Your task to perform on an android device: Go to settings Image 0: 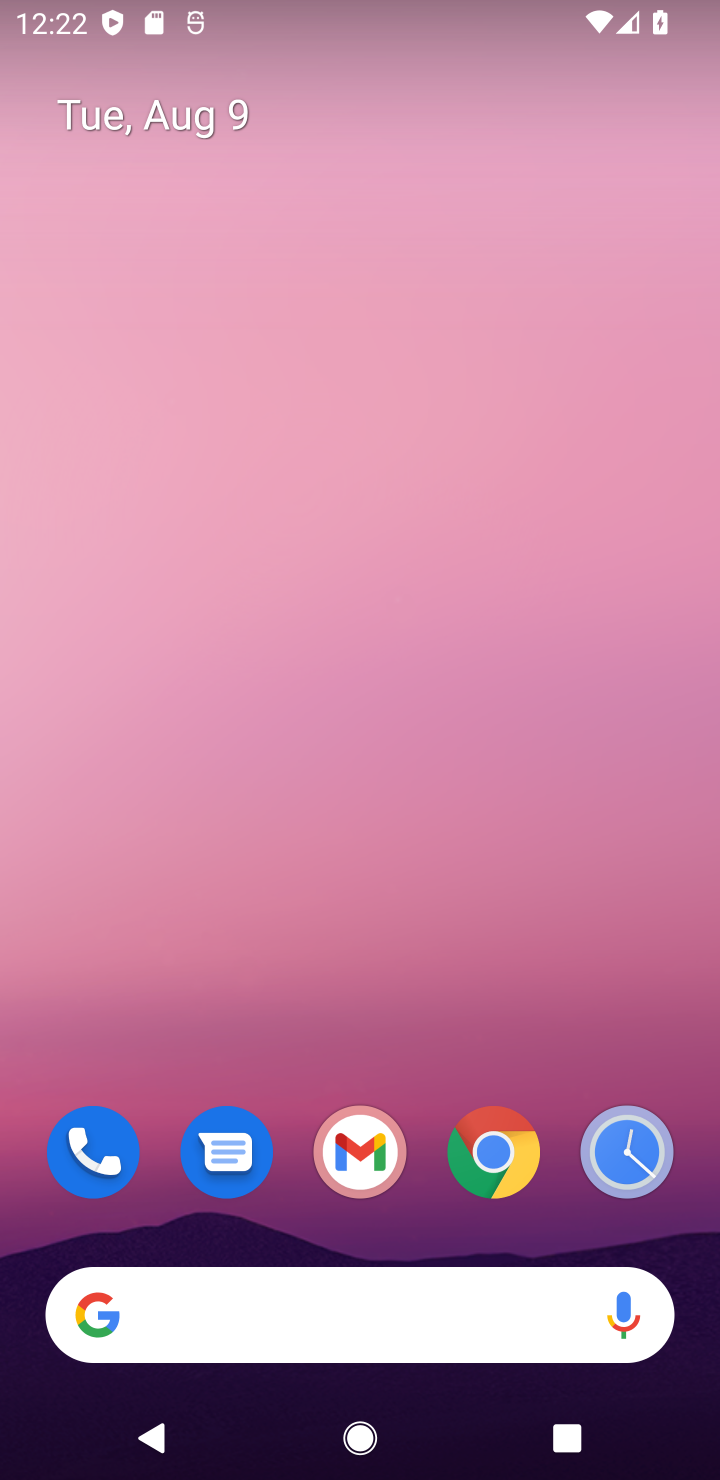
Step 0: press home button
Your task to perform on an android device: Go to settings Image 1: 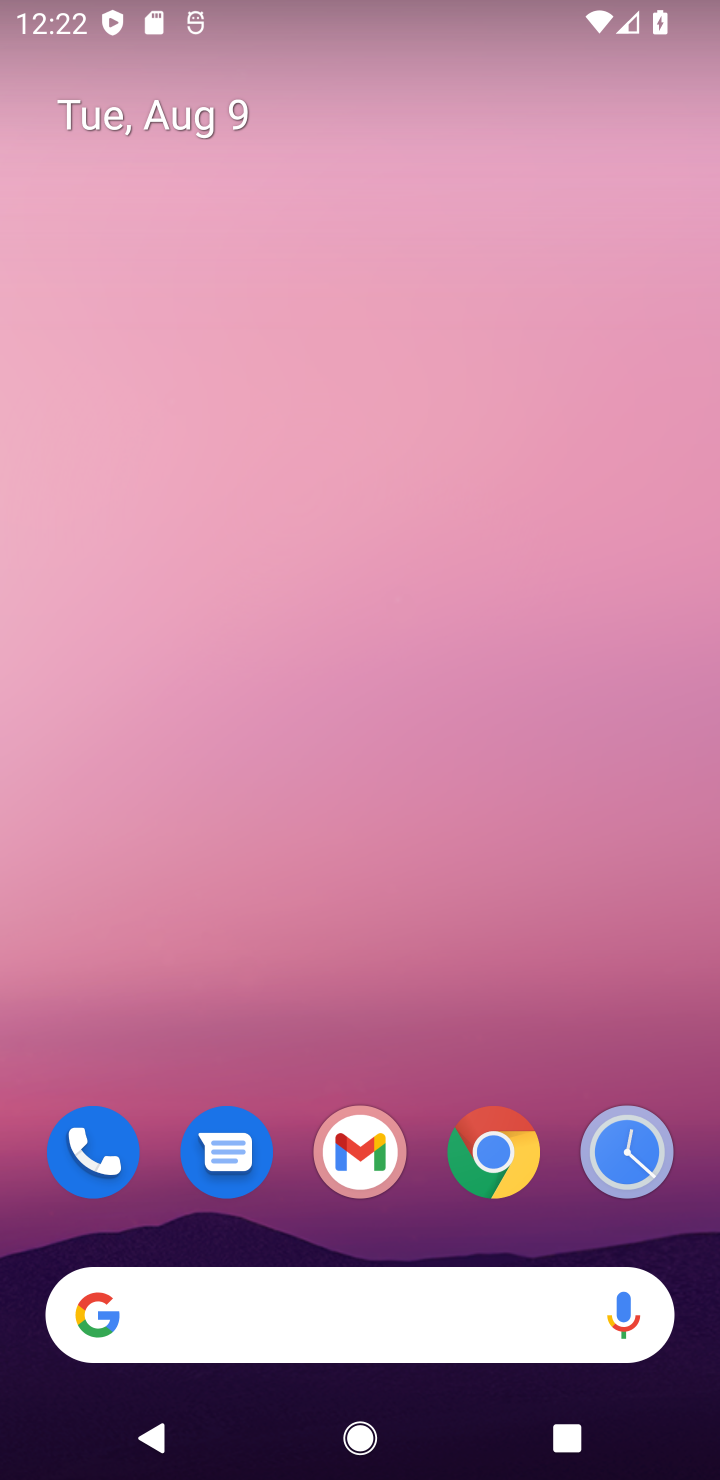
Step 1: drag from (589, 1034) to (508, 4)
Your task to perform on an android device: Go to settings Image 2: 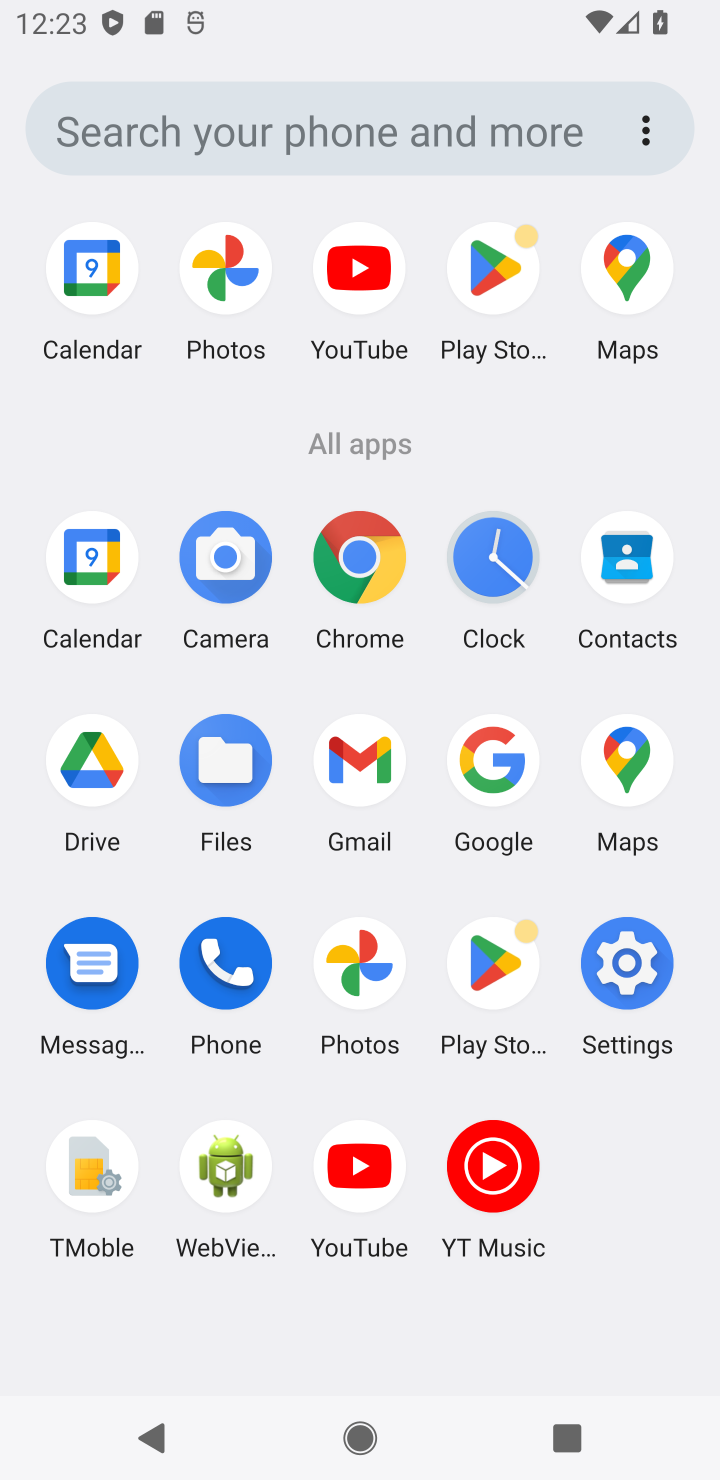
Step 2: click (640, 981)
Your task to perform on an android device: Go to settings Image 3: 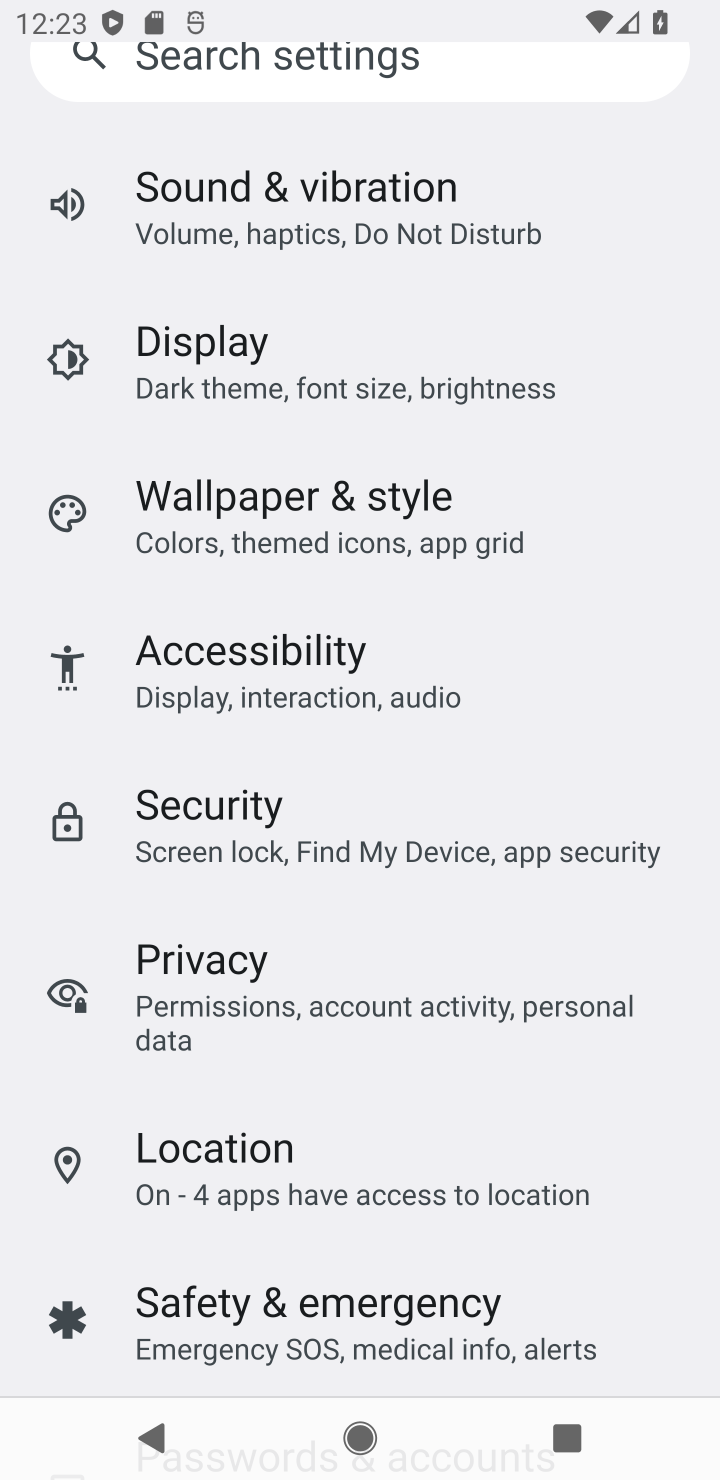
Step 3: task complete